Your task to perform on an android device: all mails in gmail Image 0: 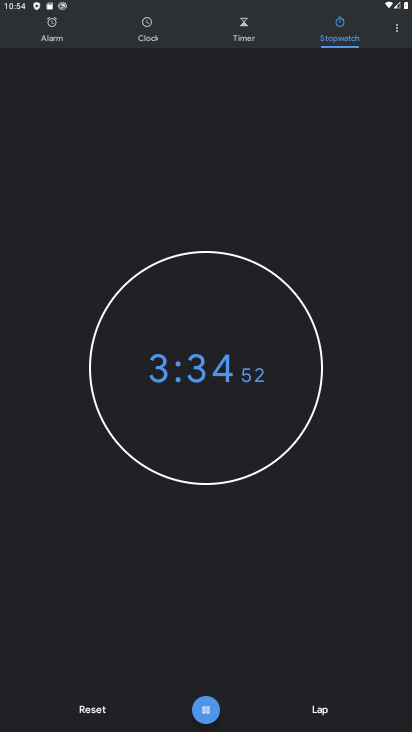
Step 0: click (405, 322)
Your task to perform on an android device: all mails in gmail Image 1: 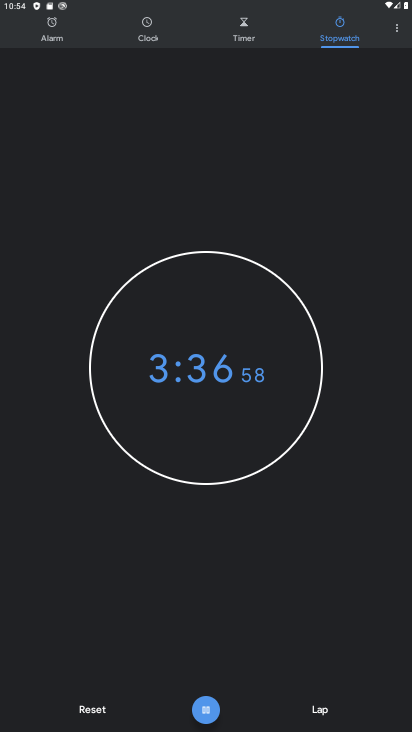
Step 1: press home button
Your task to perform on an android device: all mails in gmail Image 2: 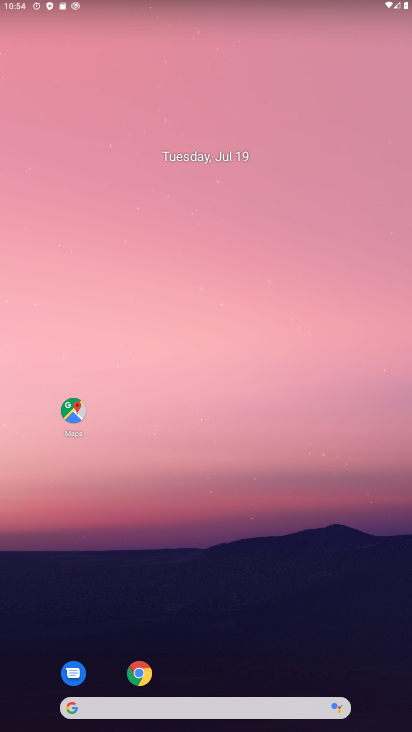
Step 2: drag from (205, 673) to (321, 232)
Your task to perform on an android device: all mails in gmail Image 3: 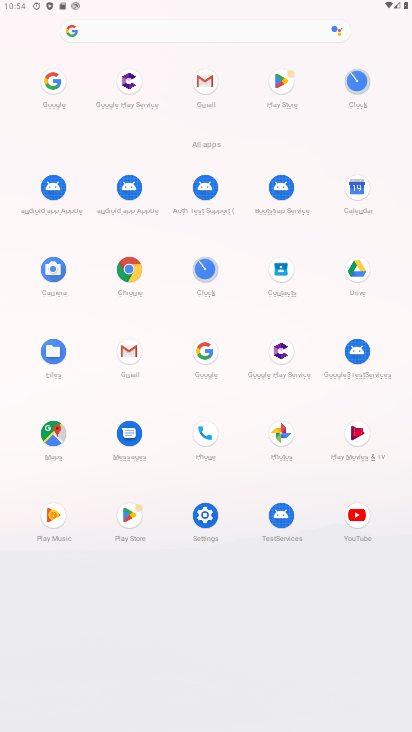
Step 3: click (124, 362)
Your task to perform on an android device: all mails in gmail Image 4: 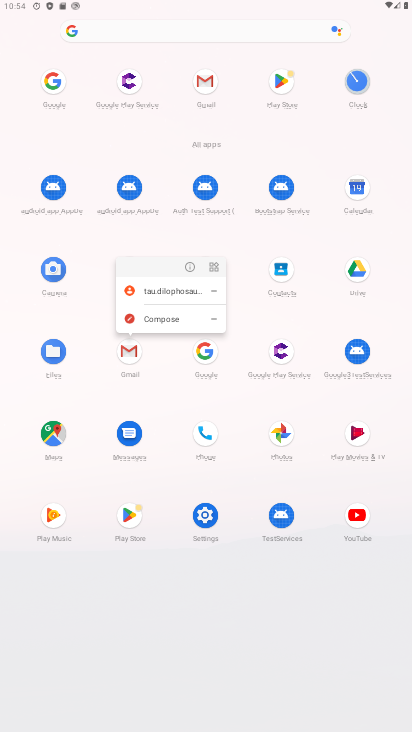
Step 4: click (134, 356)
Your task to perform on an android device: all mails in gmail Image 5: 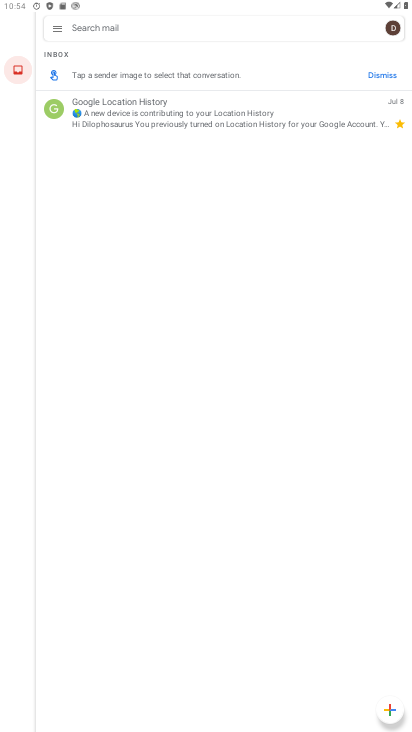
Step 5: click (54, 32)
Your task to perform on an android device: all mails in gmail Image 6: 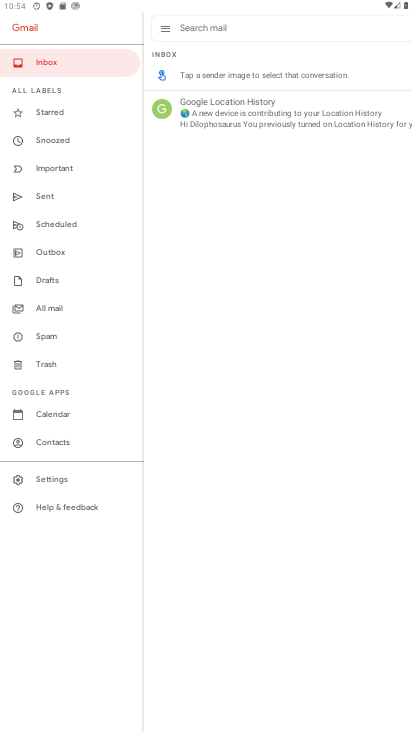
Step 6: click (70, 312)
Your task to perform on an android device: all mails in gmail Image 7: 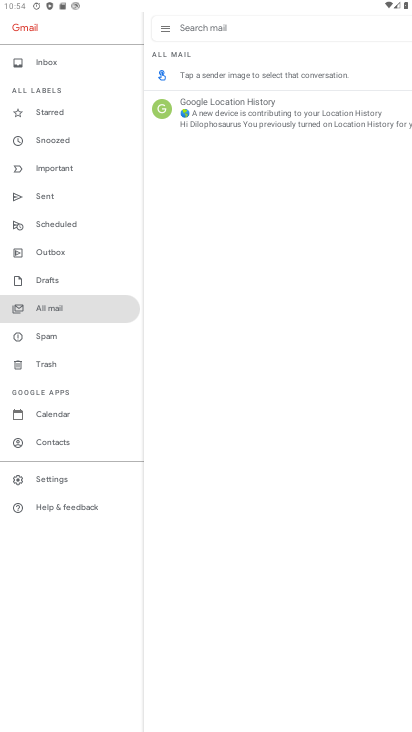
Step 7: task complete